Your task to perform on an android device: Open the calendar app, open the side menu, and click the "Day" option Image 0: 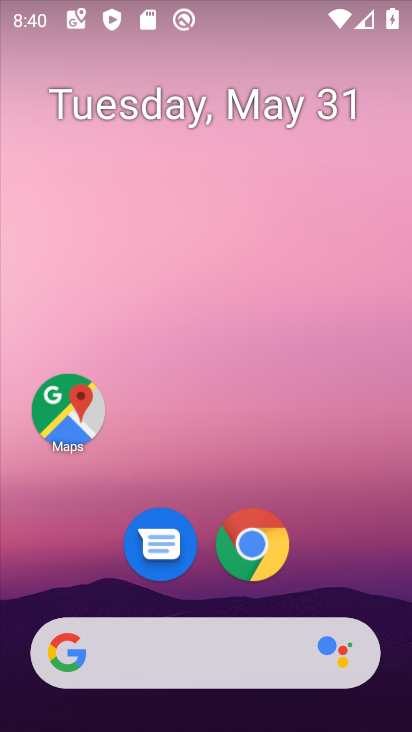
Step 0: drag from (310, 539) to (301, 31)
Your task to perform on an android device: Open the calendar app, open the side menu, and click the "Day" option Image 1: 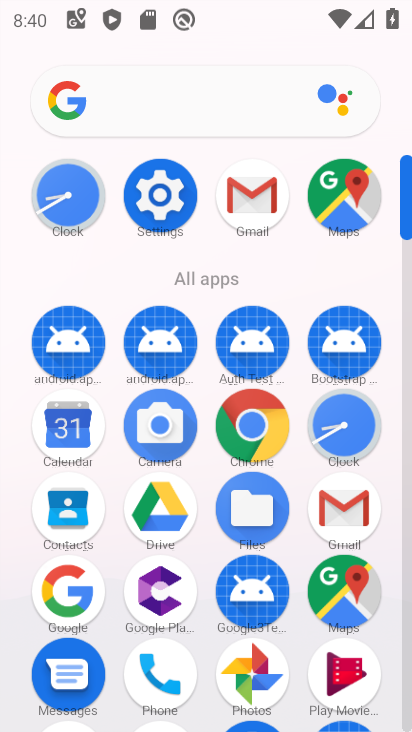
Step 1: click (69, 426)
Your task to perform on an android device: Open the calendar app, open the side menu, and click the "Day" option Image 2: 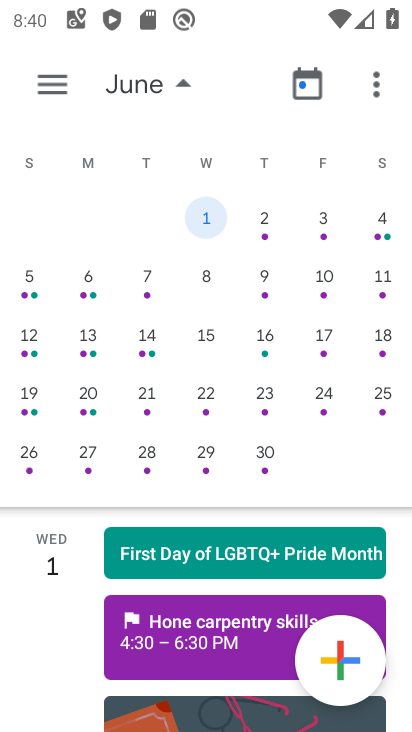
Step 2: click (48, 84)
Your task to perform on an android device: Open the calendar app, open the side menu, and click the "Day" option Image 3: 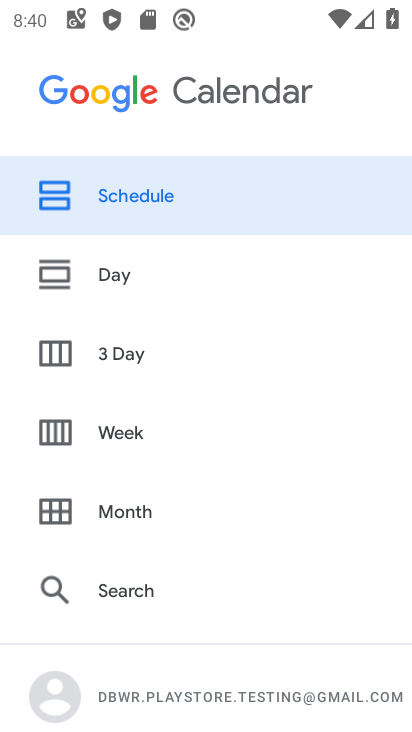
Step 3: click (130, 277)
Your task to perform on an android device: Open the calendar app, open the side menu, and click the "Day" option Image 4: 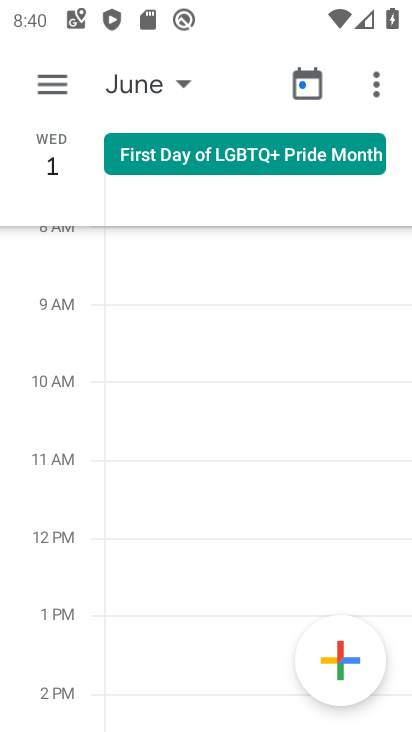
Step 4: task complete